Your task to perform on an android device: refresh tabs in the chrome app Image 0: 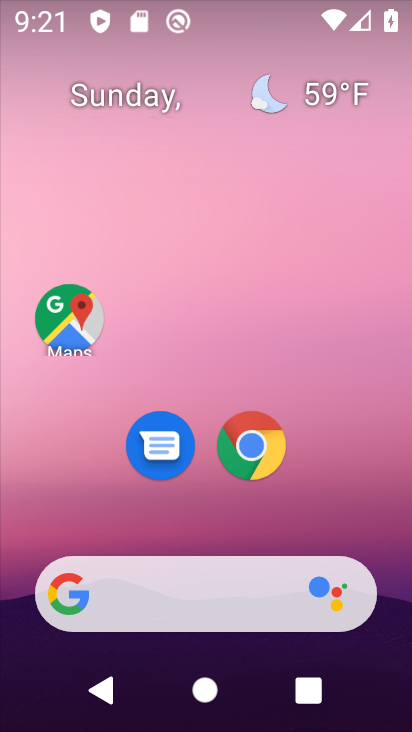
Step 0: click (261, 434)
Your task to perform on an android device: refresh tabs in the chrome app Image 1: 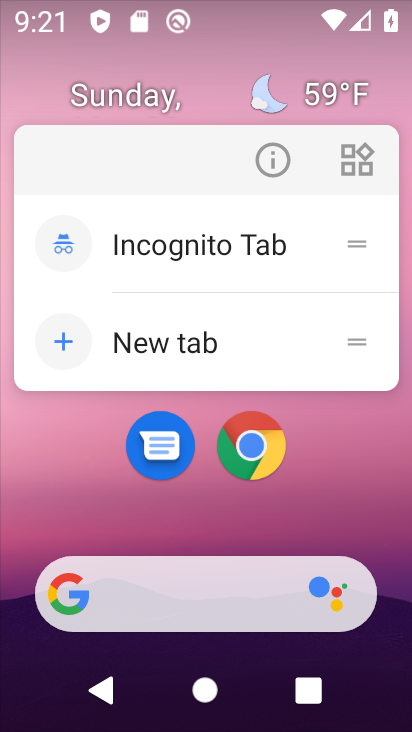
Step 1: click (257, 444)
Your task to perform on an android device: refresh tabs in the chrome app Image 2: 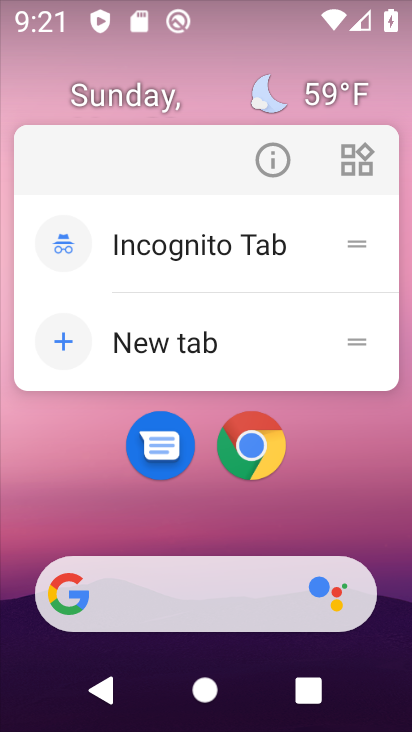
Step 2: click (257, 472)
Your task to perform on an android device: refresh tabs in the chrome app Image 3: 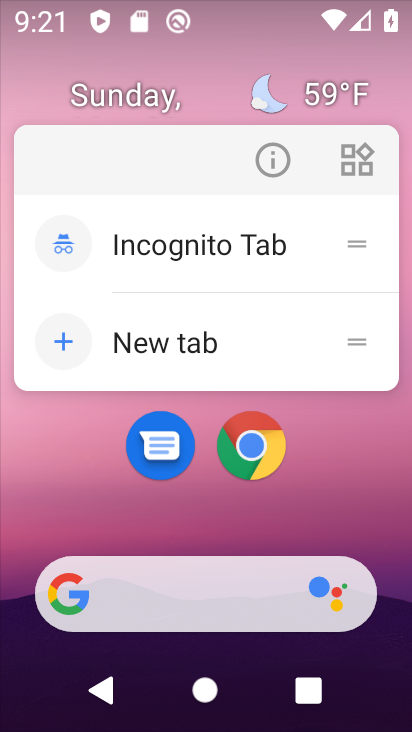
Step 3: click (257, 460)
Your task to perform on an android device: refresh tabs in the chrome app Image 4: 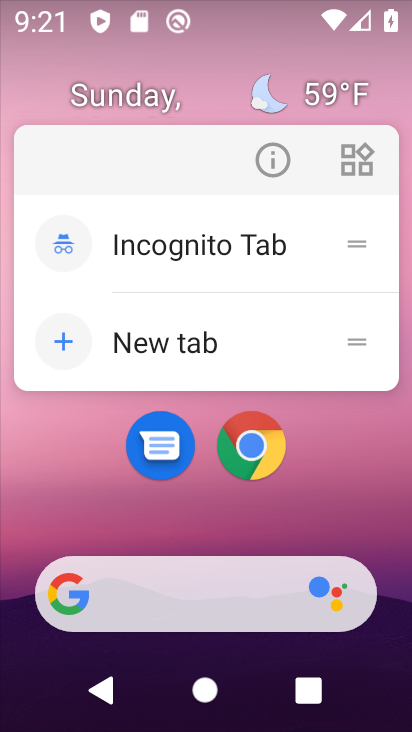
Step 4: click (264, 448)
Your task to perform on an android device: refresh tabs in the chrome app Image 5: 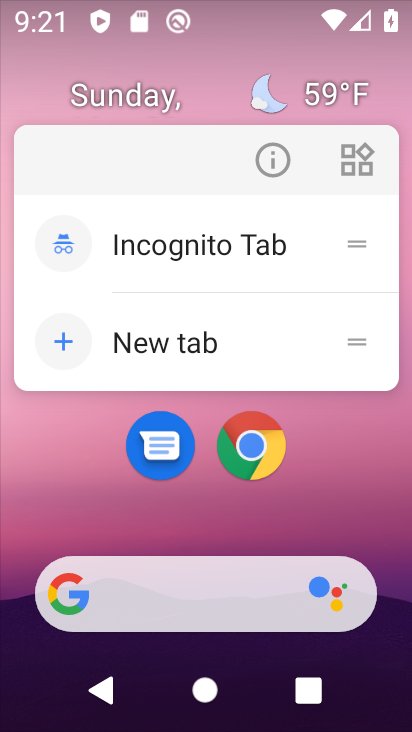
Step 5: click (252, 459)
Your task to perform on an android device: refresh tabs in the chrome app Image 6: 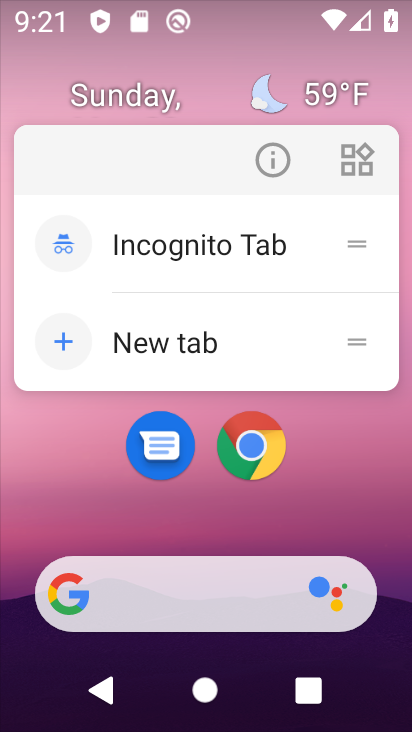
Step 6: click (269, 444)
Your task to perform on an android device: refresh tabs in the chrome app Image 7: 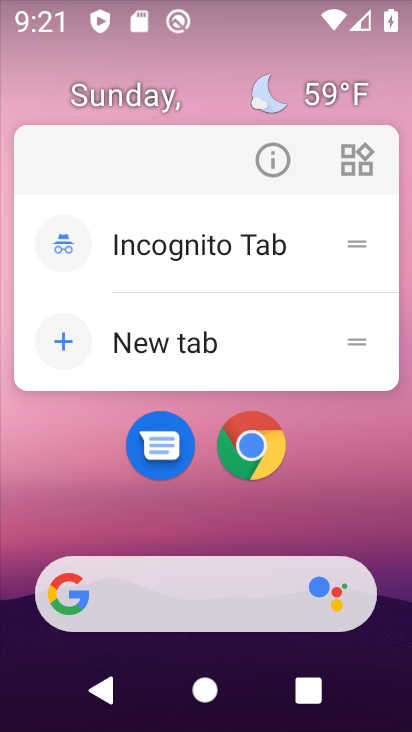
Step 7: click (254, 464)
Your task to perform on an android device: refresh tabs in the chrome app Image 8: 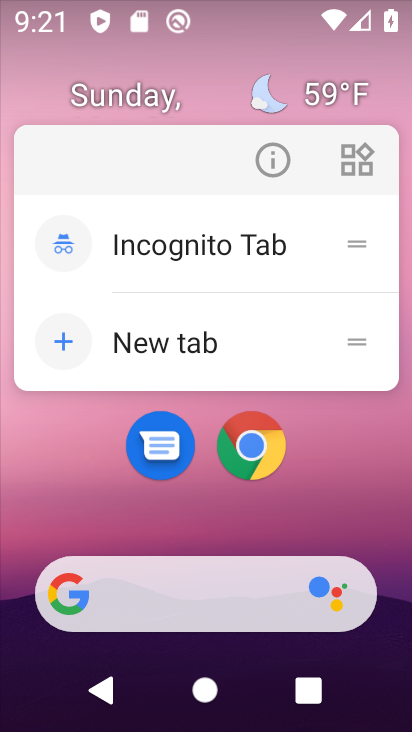
Step 8: click (254, 464)
Your task to perform on an android device: refresh tabs in the chrome app Image 9: 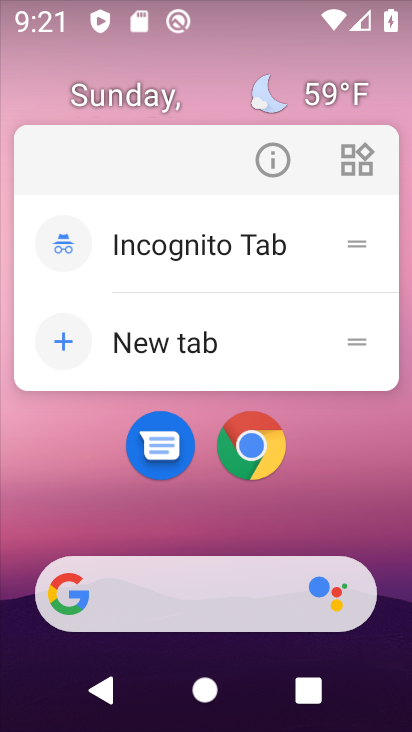
Step 9: click (256, 456)
Your task to perform on an android device: refresh tabs in the chrome app Image 10: 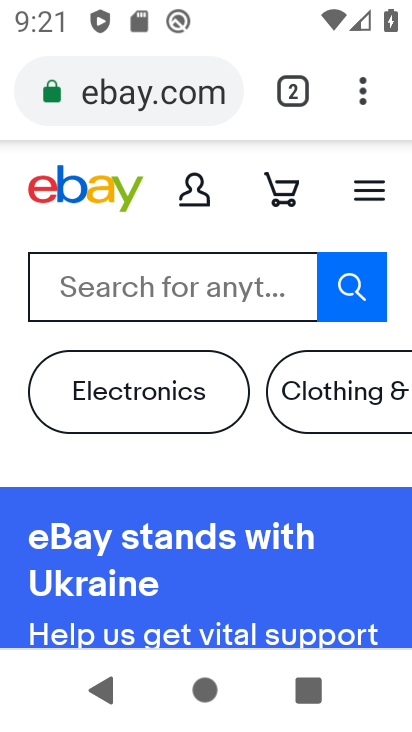
Step 10: click (391, 72)
Your task to perform on an android device: refresh tabs in the chrome app Image 11: 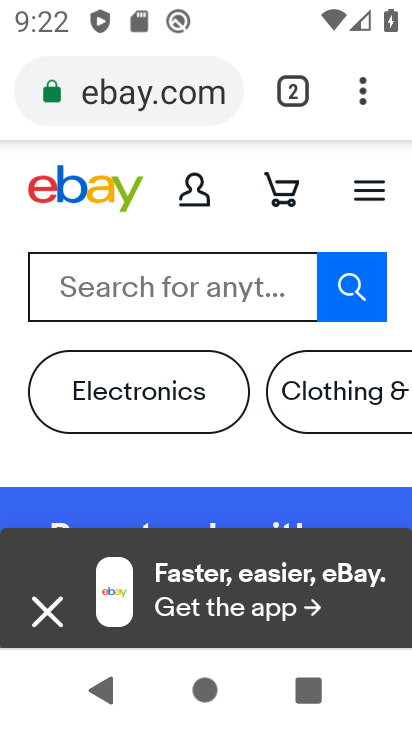
Step 11: task complete